Your task to perform on an android device: turn off javascript in the chrome app Image 0: 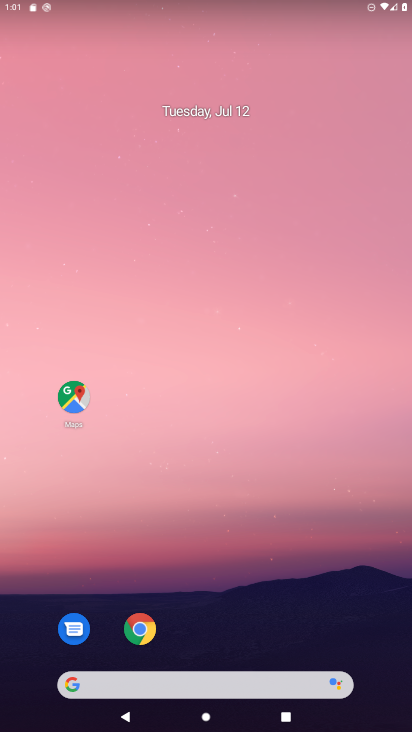
Step 0: press home button
Your task to perform on an android device: turn off javascript in the chrome app Image 1: 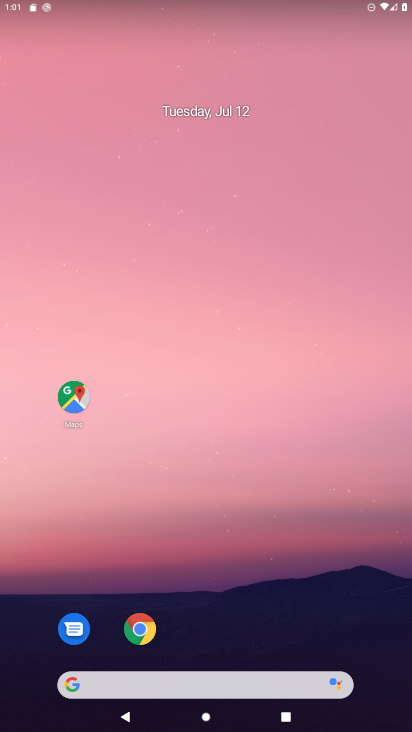
Step 1: click (138, 626)
Your task to perform on an android device: turn off javascript in the chrome app Image 2: 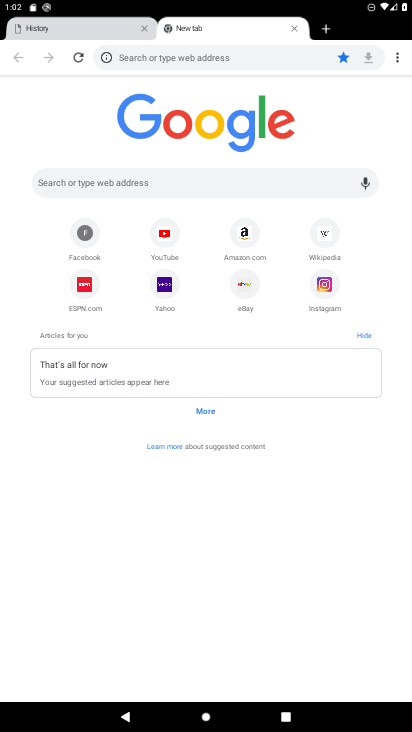
Step 2: click (398, 56)
Your task to perform on an android device: turn off javascript in the chrome app Image 3: 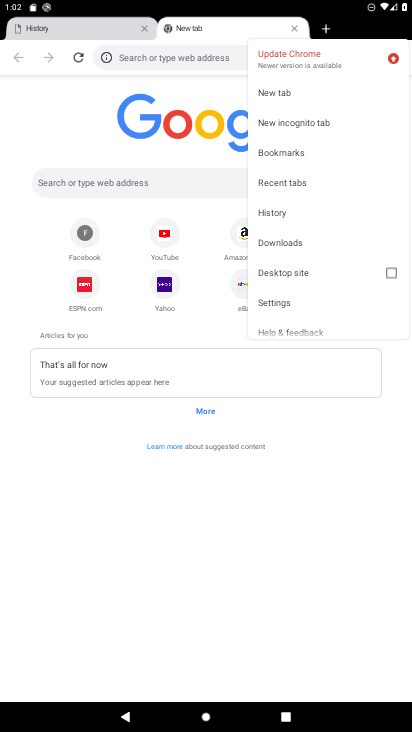
Step 3: click (298, 299)
Your task to perform on an android device: turn off javascript in the chrome app Image 4: 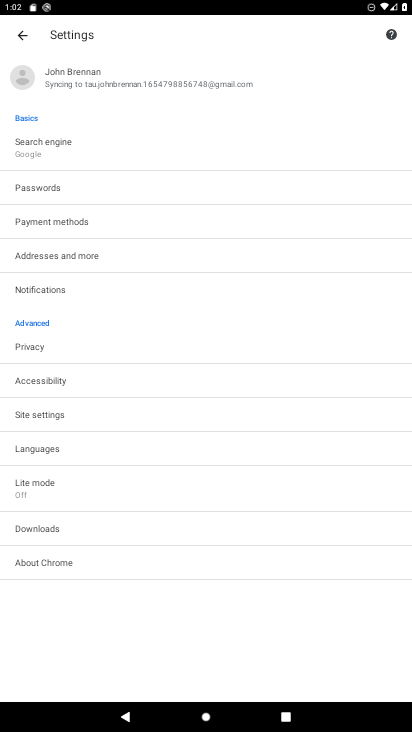
Step 4: click (72, 418)
Your task to perform on an android device: turn off javascript in the chrome app Image 5: 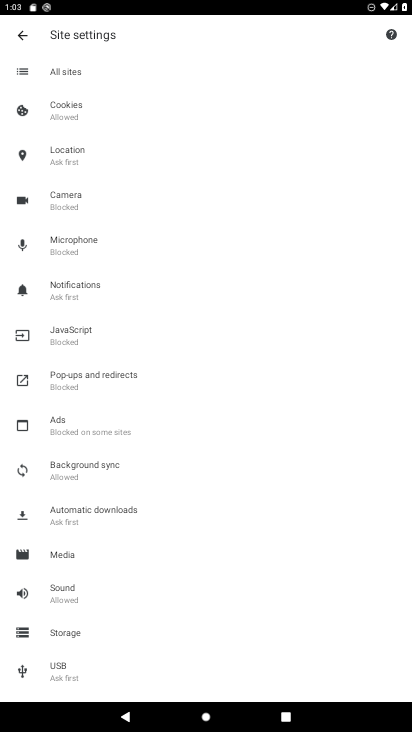
Step 5: click (94, 342)
Your task to perform on an android device: turn off javascript in the chrome app Image 6: 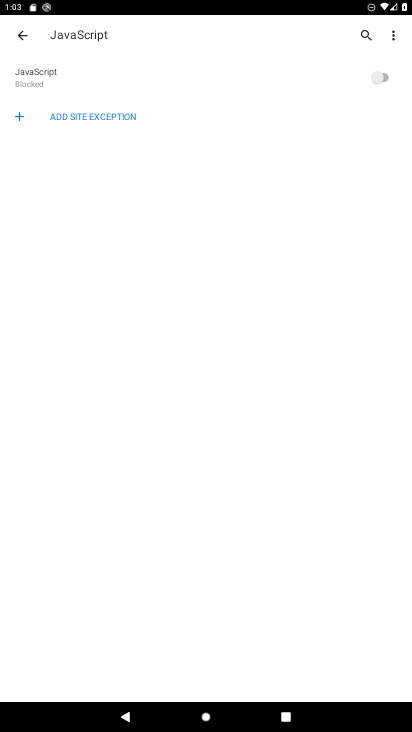
Step 6: task complete